Your task to perform on an android device: move an email to a new category in the gmail app Image 0: 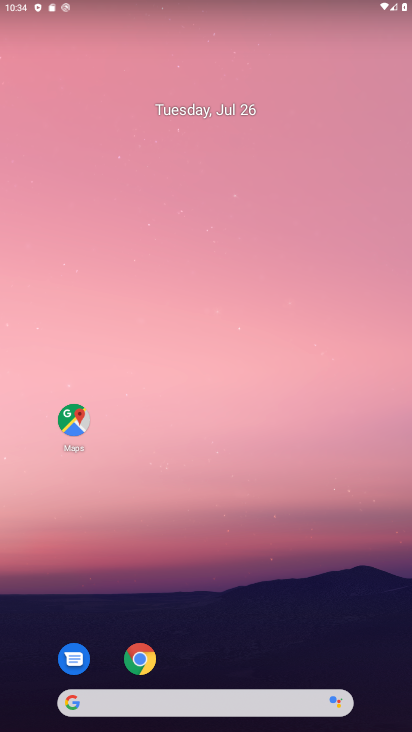
Step 0: drag from (0, 721) to (211, 148)
Your task to perform on an android device: move an email to a new category in the gmail app Image 1: 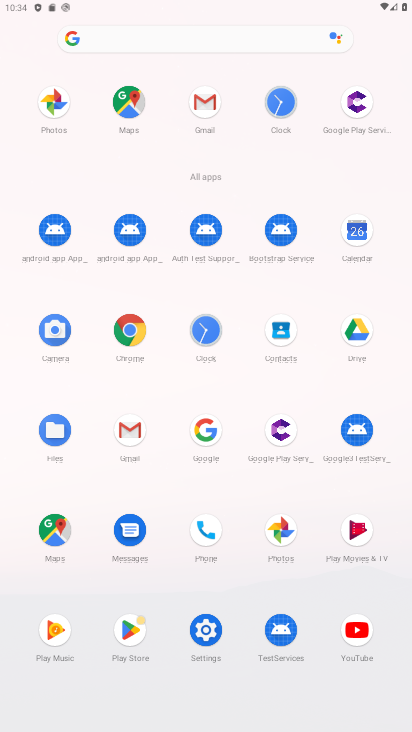
Step 1: click (210, 121)
Your task to perform on an android device: move an email to a new category in the gmail app Image 2: 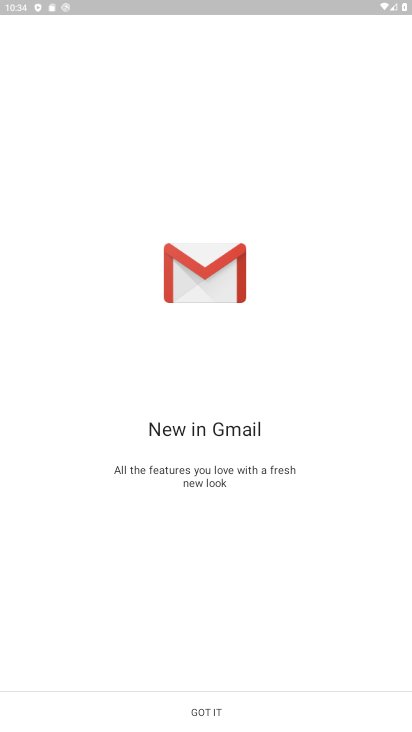
Step 2: click (232, 706)
Your task to perform on an android device: move an email to a new category in the gmail app Image 3: 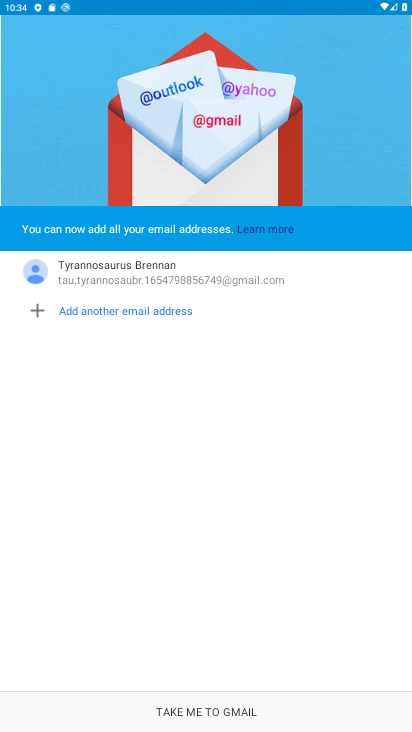
Step 3: click (232, 706)
Your task to perform on an android device: move an email to a new category in the gmail app Image 4: 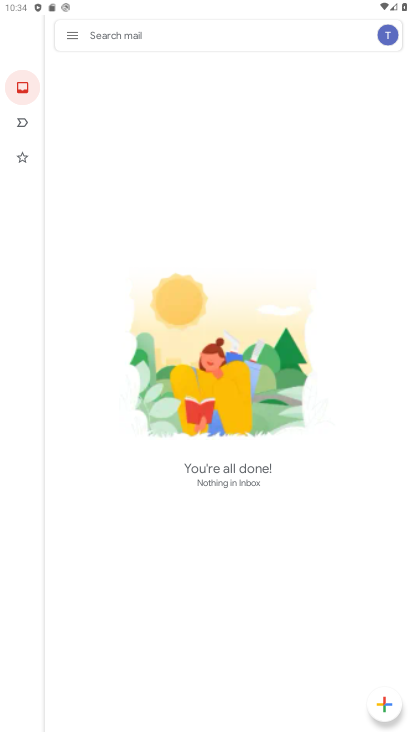
Step 4: task complete